Your task to perform on an android device: What's the weather? Image 0: 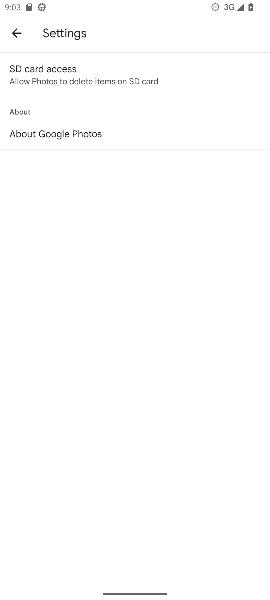
Step 0: press home button
Your task to perform on an android device: What's the weather? Image 1: 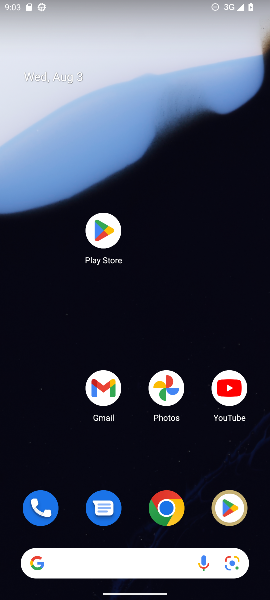
Step 1: click (132, 526)
Your task to perform on an android device: What's the weather? Image 2: 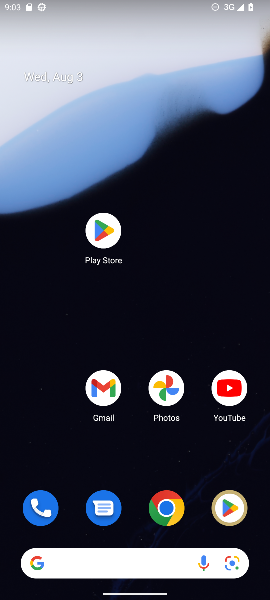
Step 2: click (129, 552)
Your task to perform on an android device: What's the weather? Image 3: 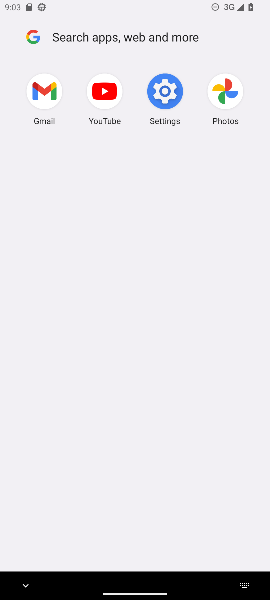
Step 3: type "weather"
Your task to perform on an android device: What's the weather? Image 4: 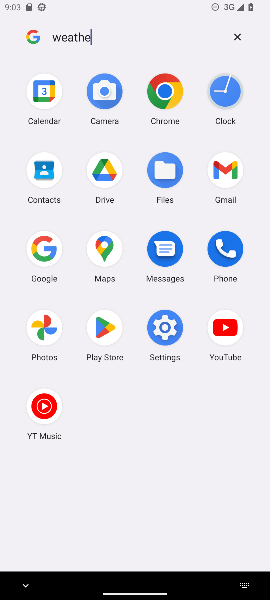
Step 4: type ""
Your task to perform on an android device: What's the weather? Image 5: 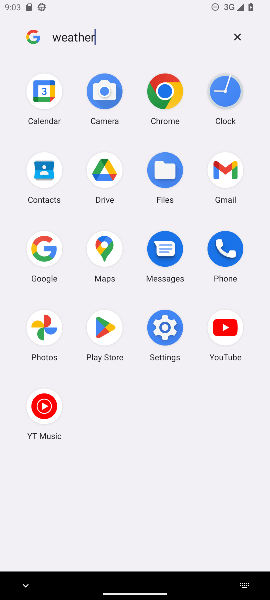
Step 5: click (47, 252)
Your task to perform on an android device: What's the weather? Image 6: 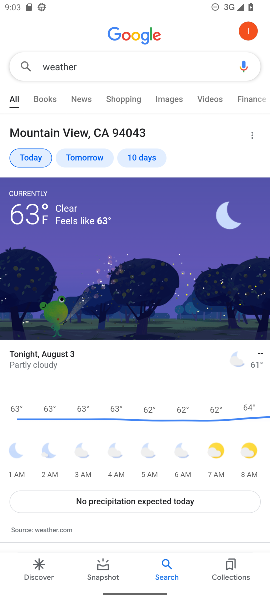
Step 6: task complete